Your task to perform on an android device: Install the Yahoo app Image 0: 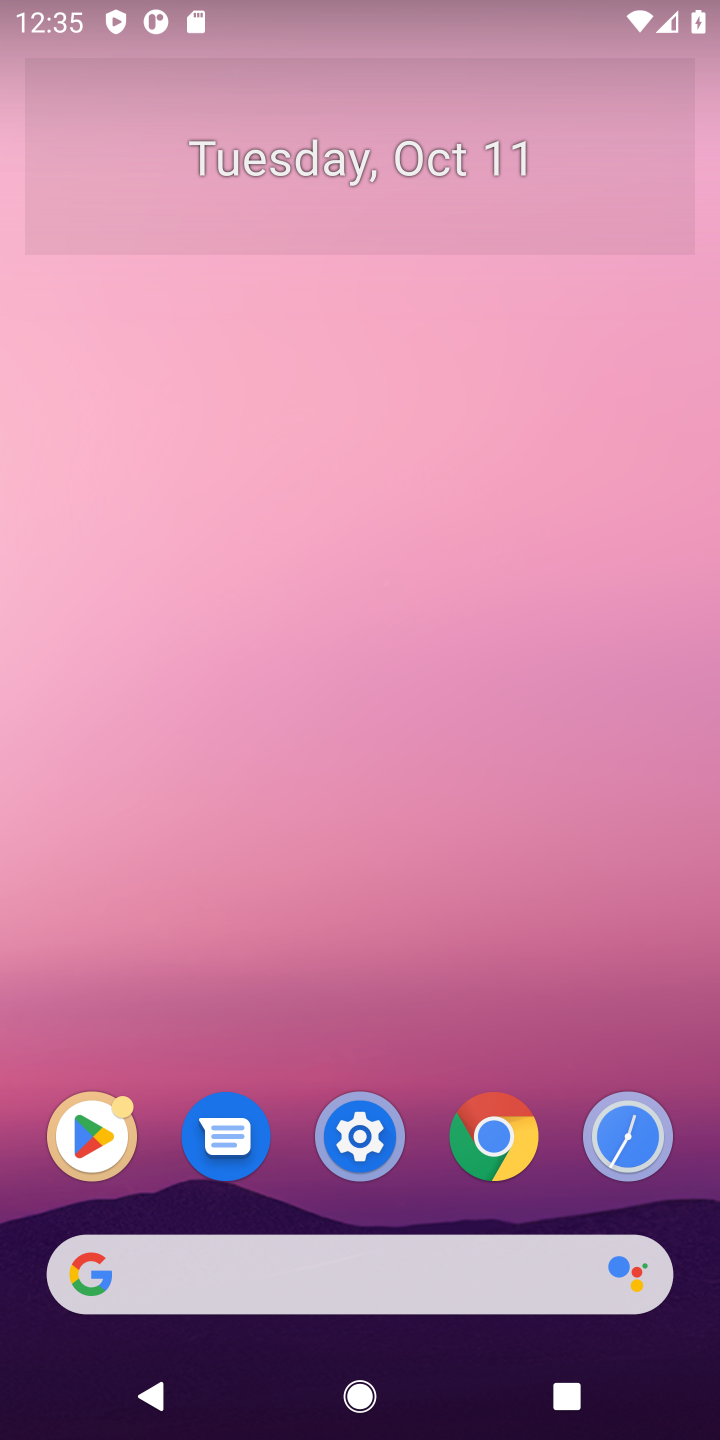
Step 0: drag from (667, 1014) to (669, 118)
Your task to perform on an android device: Install the Yahoo app Image 1: 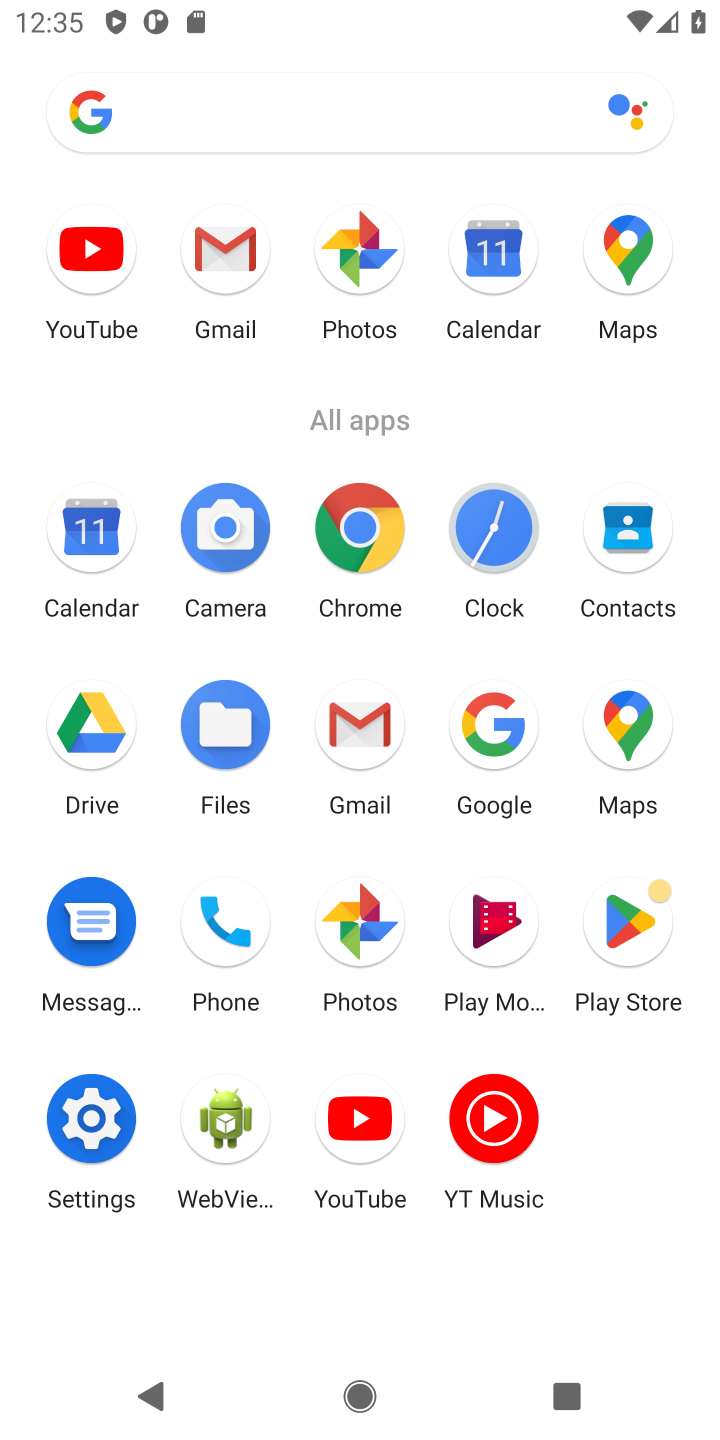
Step 1: click (644, 930)
Your task to perform on an android device: Install the Yahoo app Image 2: 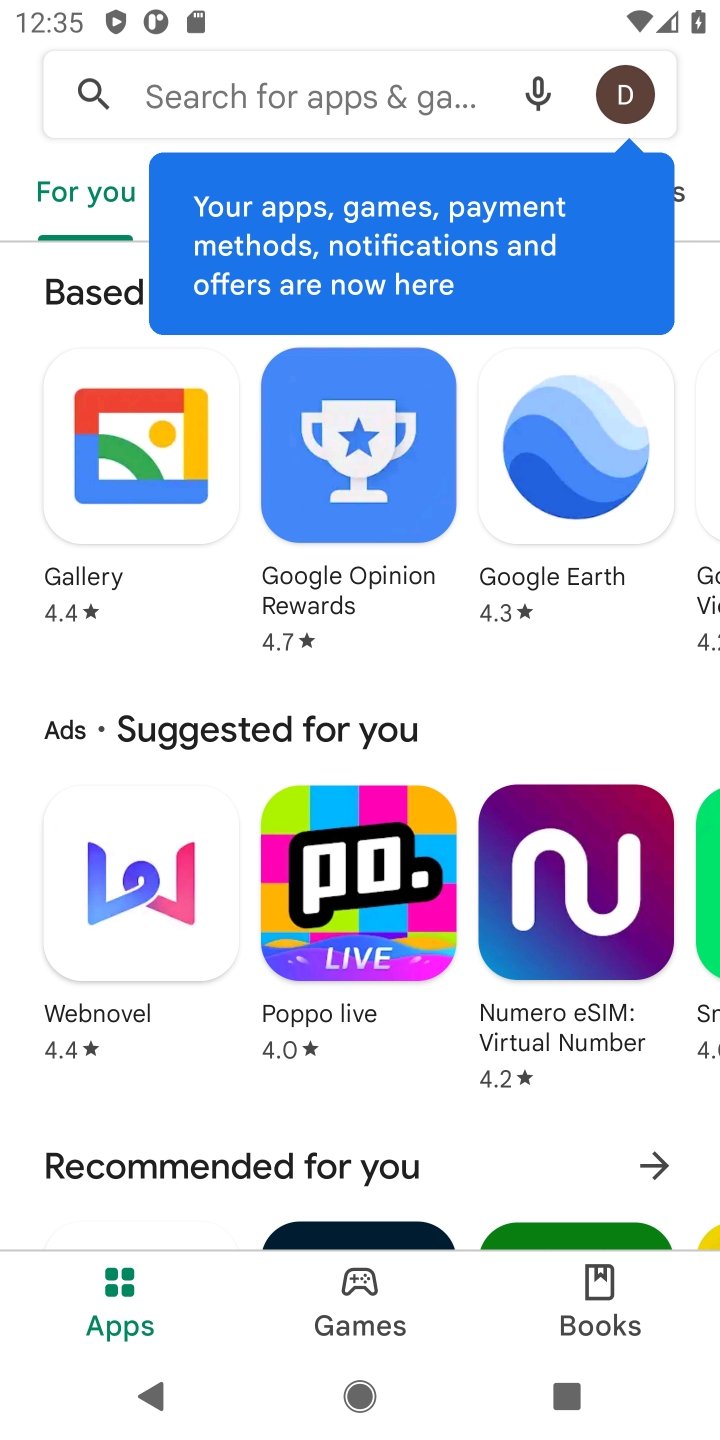
Step 2: click (263, 93)
Your task to perform on an android device: Install the Yahoo app Image 3: 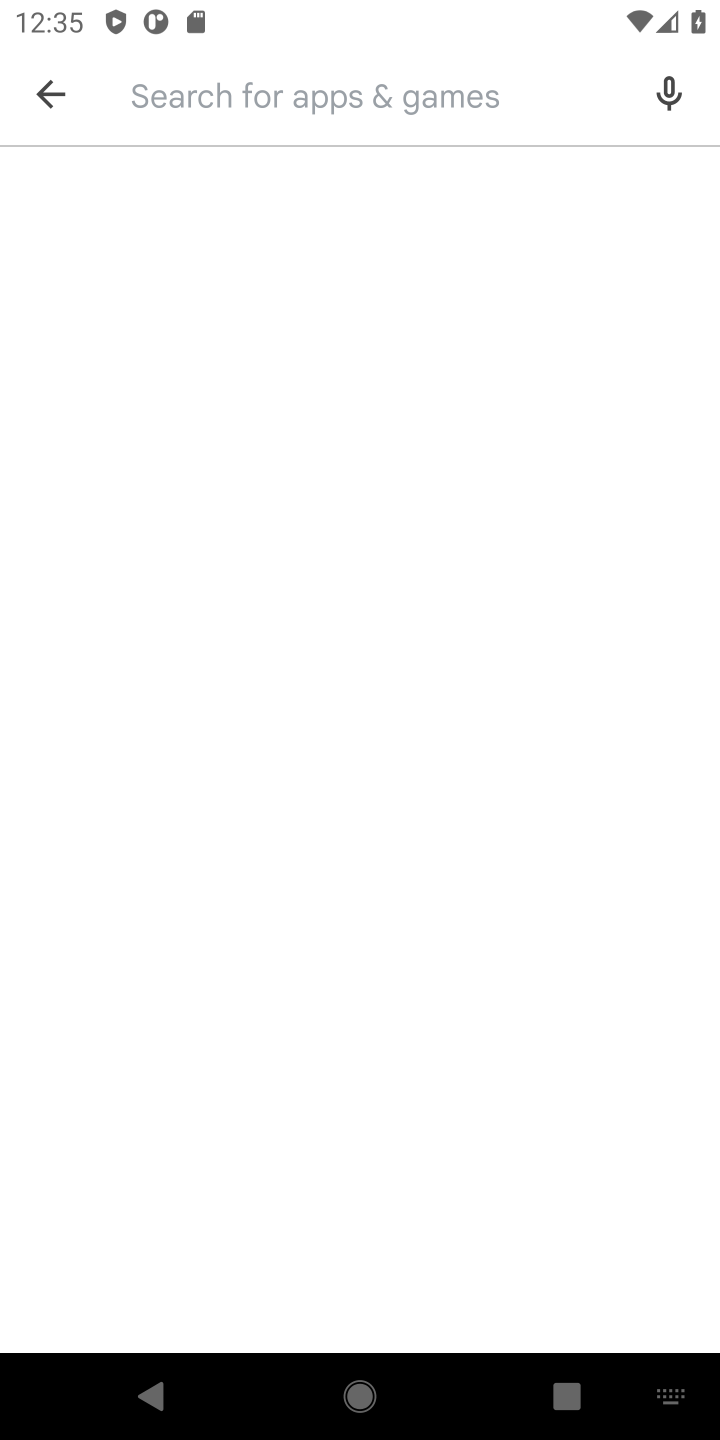
Step 3: type "Yahoo app"
Your task to perform on an android device: Install the Yahoo app Image 4: 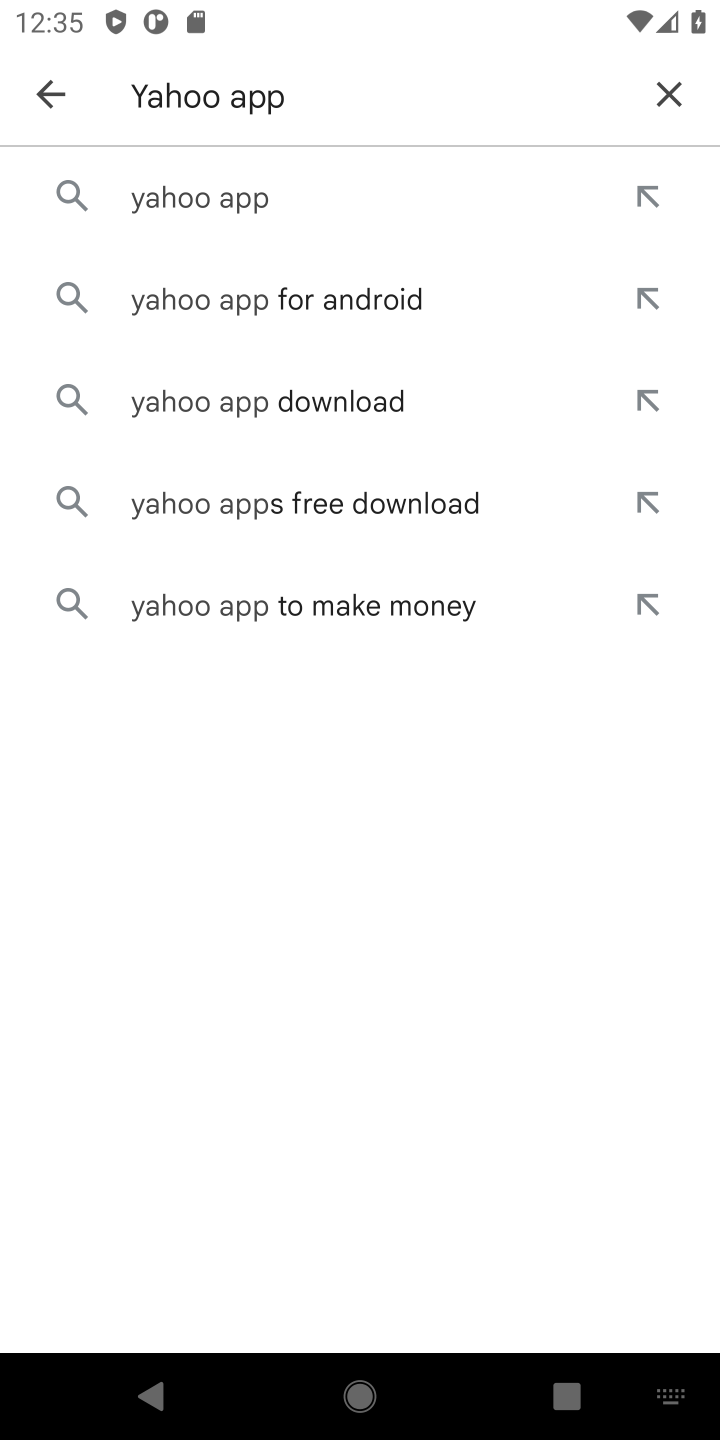
Step 4: press enter
Your task to perform on an android device: Install the Yahoo app Image 5: 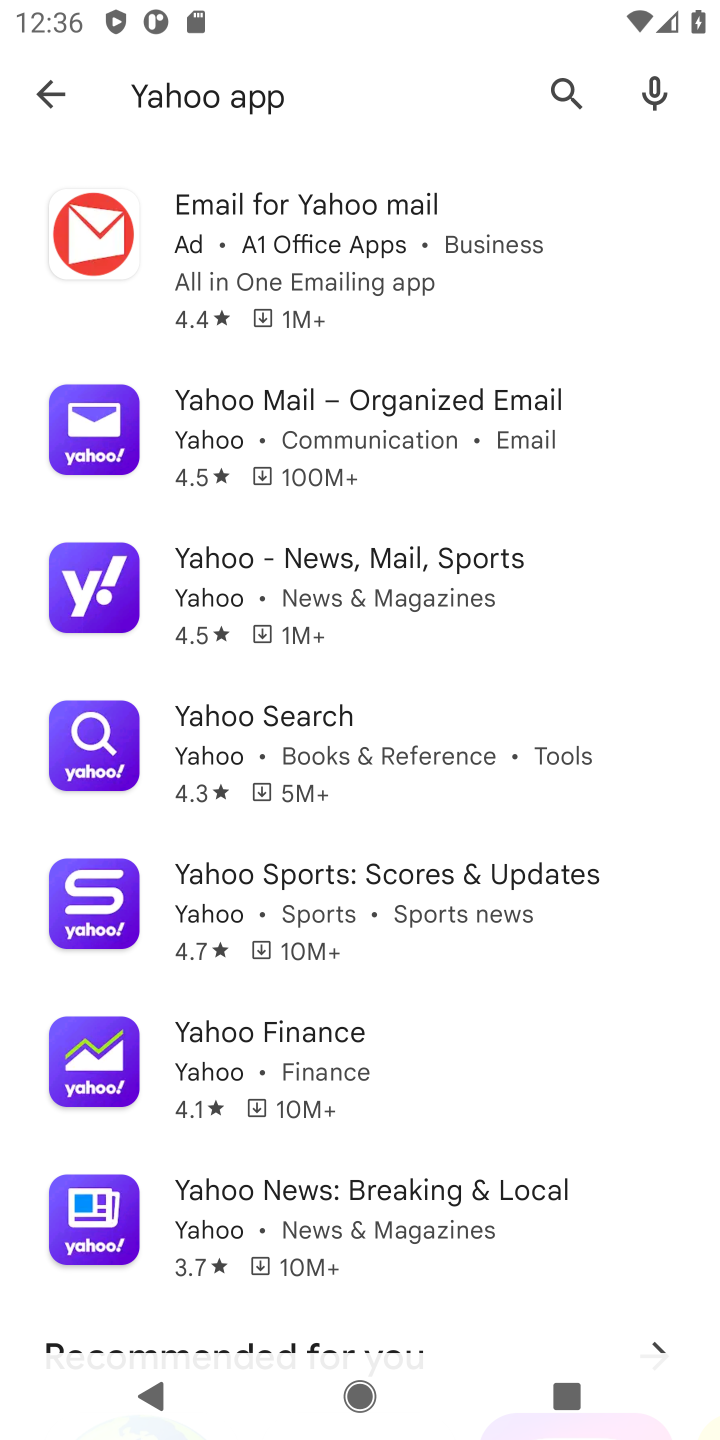
Step 5: click (369, 451)
Your task to perform on an android device: Install the Yahoo app Image 6: 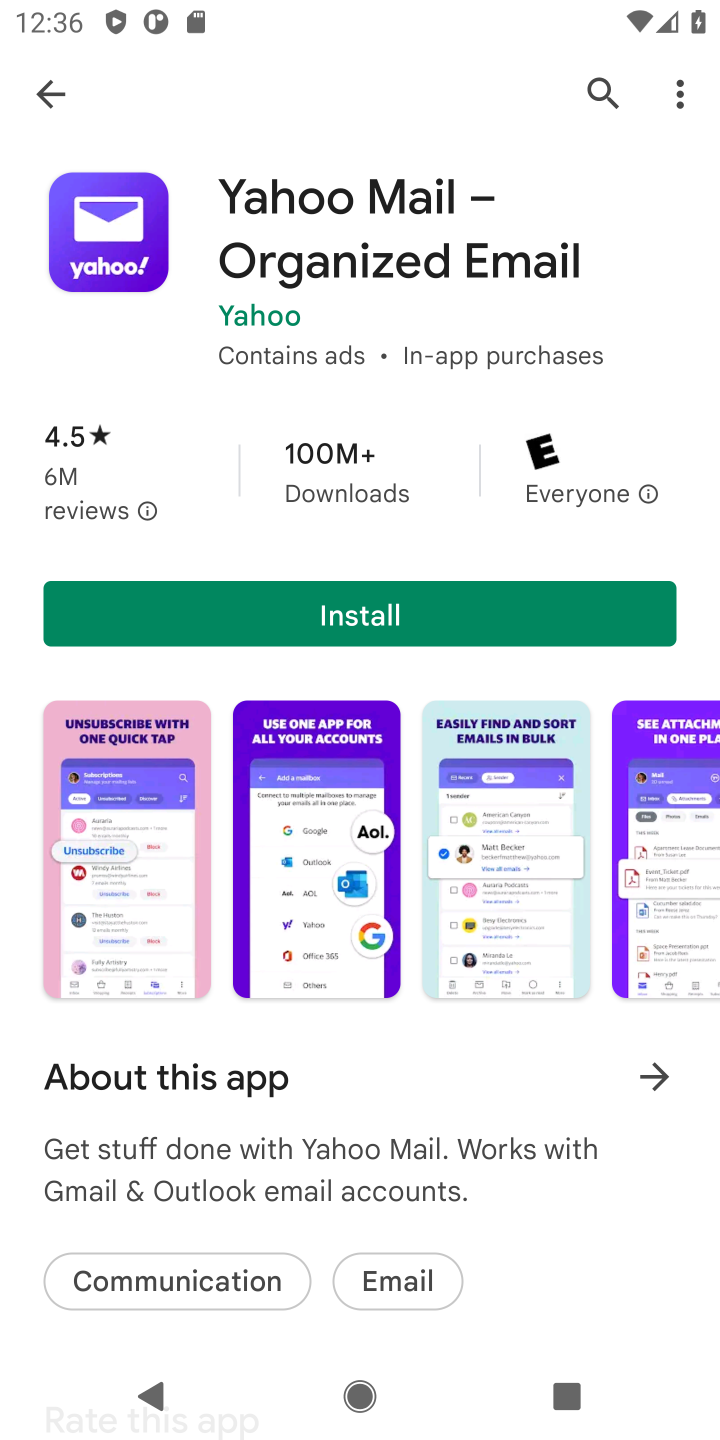
Step 6: click (409, 627)
Your task to perform on an android device: Install the Yahoo app Image 7: 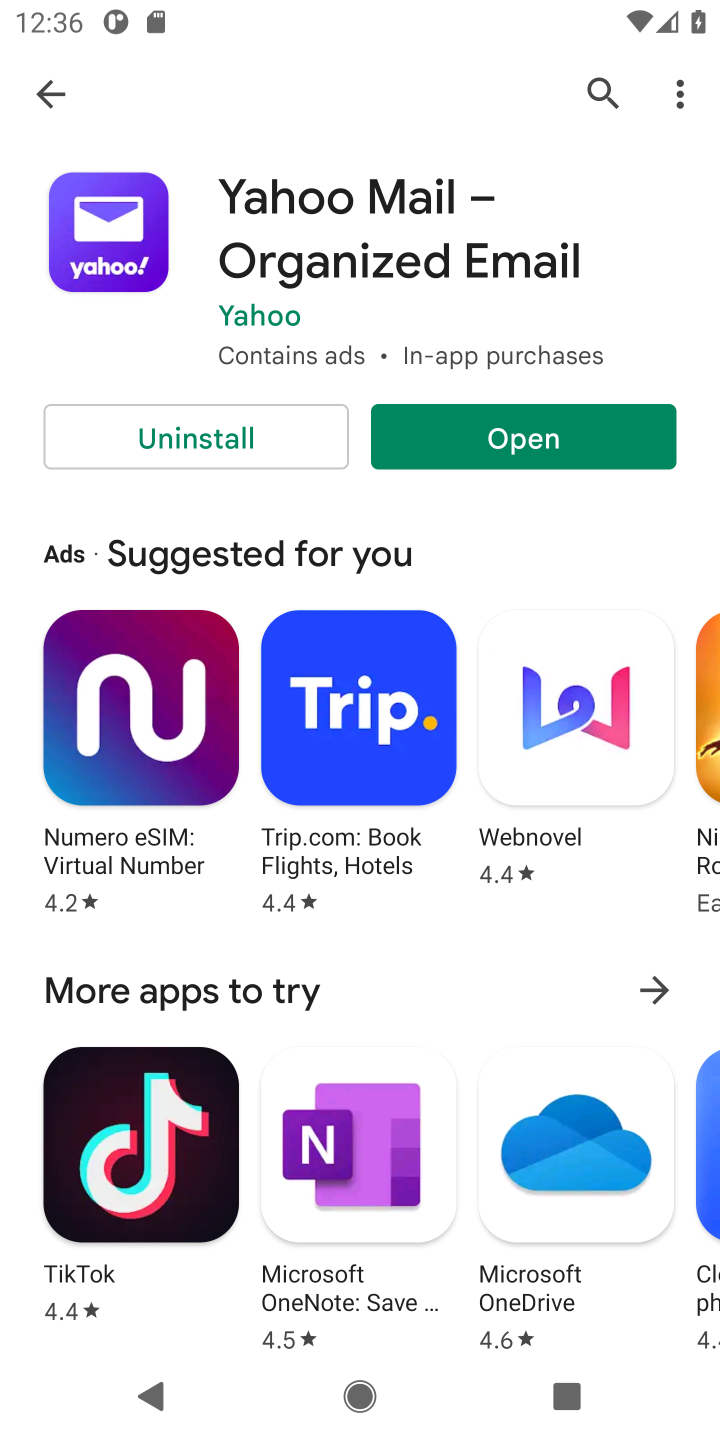
Step 7: task complete